Your task to perform on an android device: What's on my calendar tomorrow? Image 0: 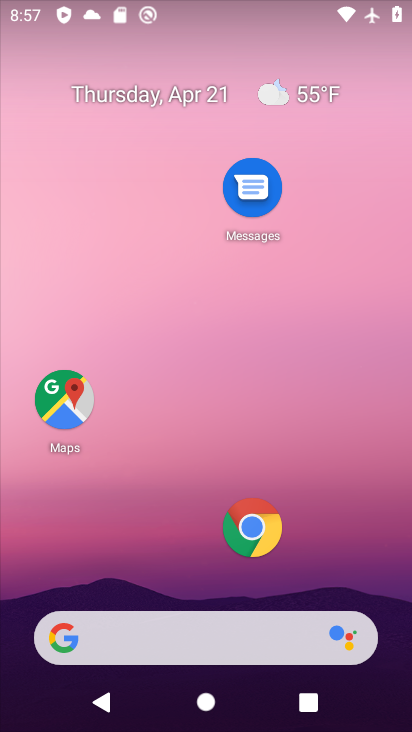
Step 0: drag from (186, 585) to (230, 176)
Your task to perform on an android device: What's on my calendar tomorrow? Image 1: 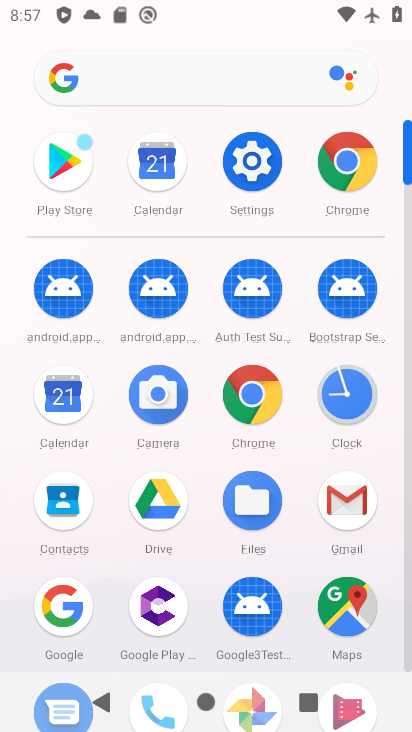
Step 1: click (63, 395)
Your task to perform on an android device: What's on my calendar tomorrow? Image 2: 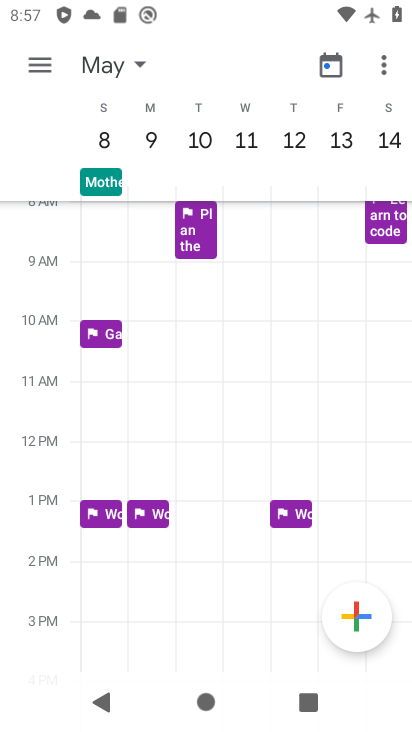
Step 2: click (107, 66)
Your task to perform on an android device: What's on my calendar tomorrow? Image 3: 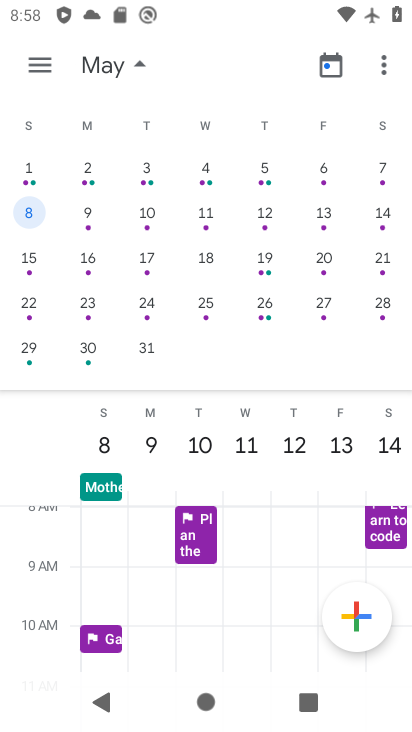
Step 3: drag from (61, 258) to (370, 250)
Your task to perform on an android device: What's on my calendar tomorrow? Image 4: 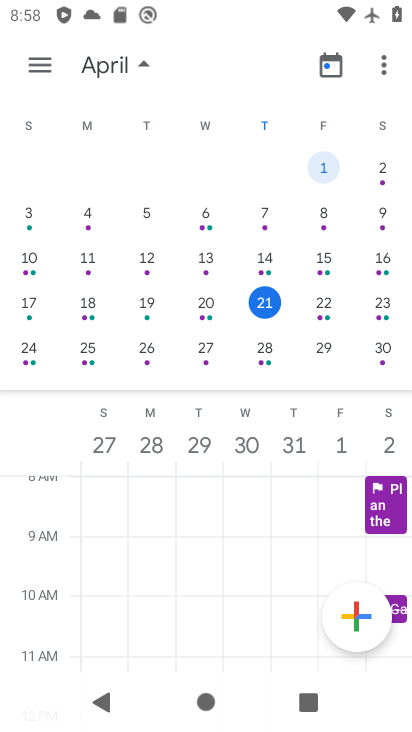
Step 4: click (321, 305)
Your task to perform on an android device: What's on my calendar tomorrow? Image 5: 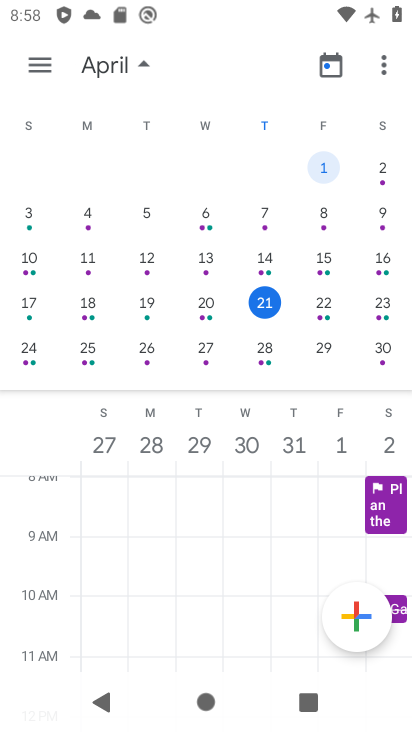
Step 5: click (327, 308)
Your task to perform on an android device: What's on my calendar tomorrow? Image 6: 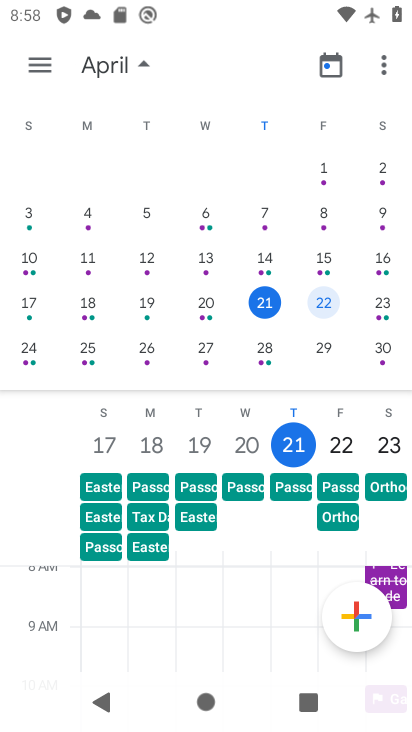
Step 6: click (36, 71)
Your task to perform on an android device: What's on my calendar tomorrow? Image 7: 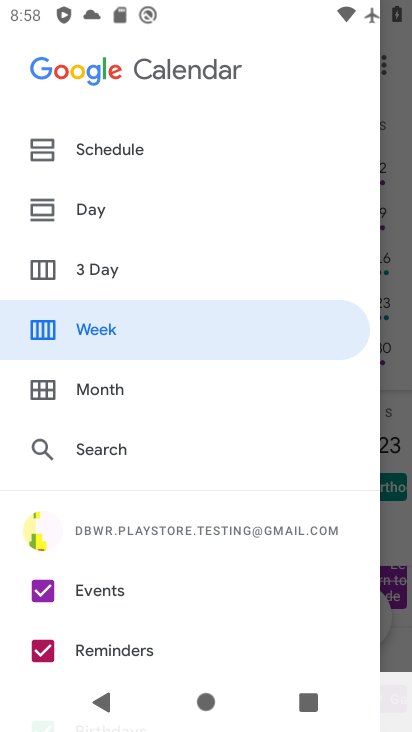
Step 7: click (96, 143)
Your task to perform on an android device: What's on my calendar tomorrow? Image 8: 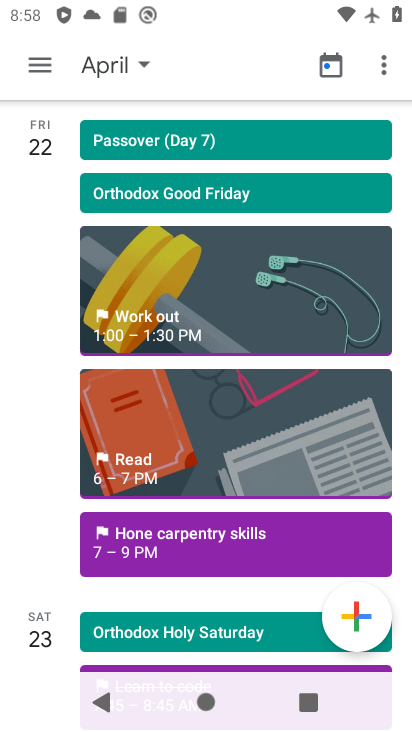
Step 8: click (158, 535)
Your task to perform on an android device: What's on my calendar tomorrow? Image 9: 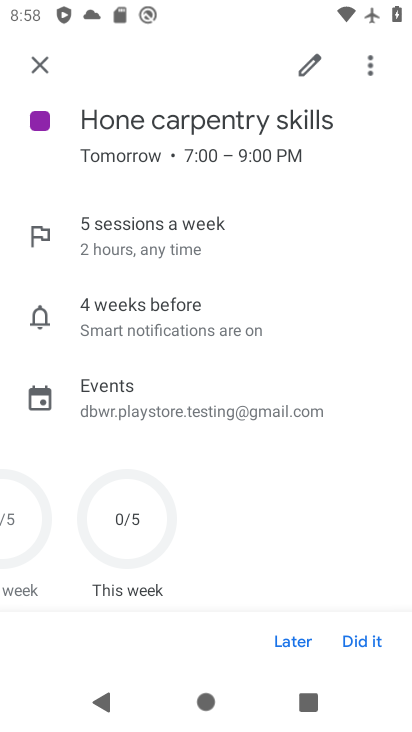
Step 9: task complete